Your task to perform on an android device: add a contact Image 0: 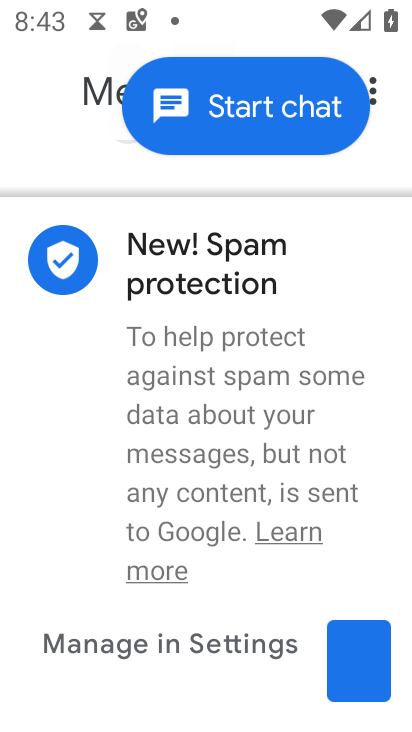
Step 0: press home button
Your task to perform on an android device: add a contact Image 1: 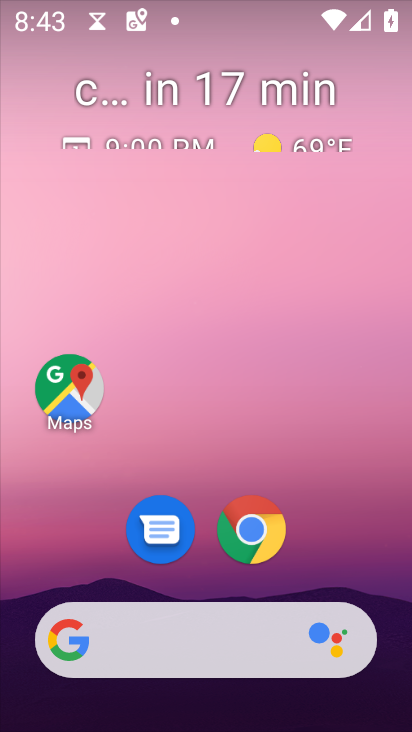
Step 1: drag from (339, 471) to (337, 97)
Your task to perform on an android device: add a contact Image 2: 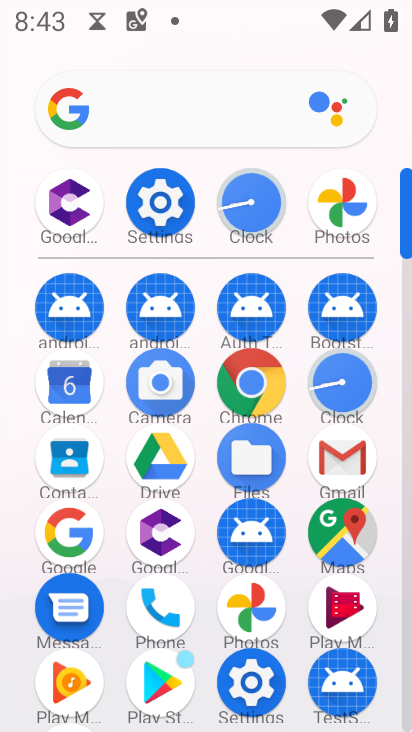
Step 2: click (60, 467)
Your task to perform on an android device: add a contact Image 3: 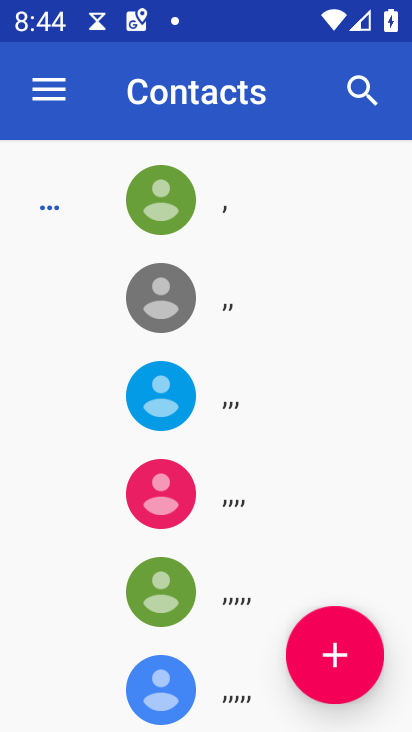
Step 3: click (353, 641)
Your task to perform on an android device: add a contact Image 4: 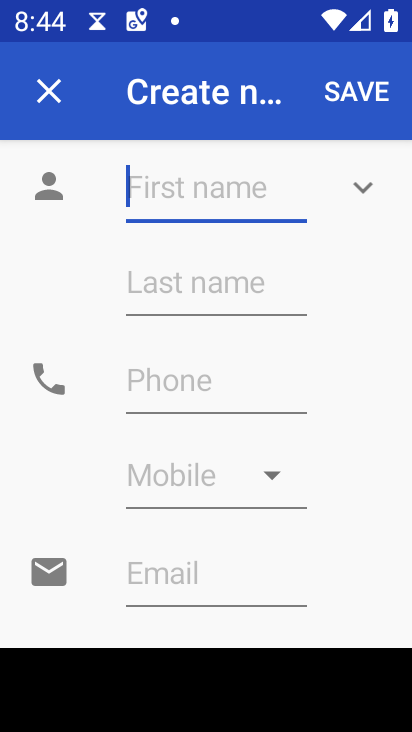
Step 4: type "s"
Your task to perform on an android device: add a contact Image 5: 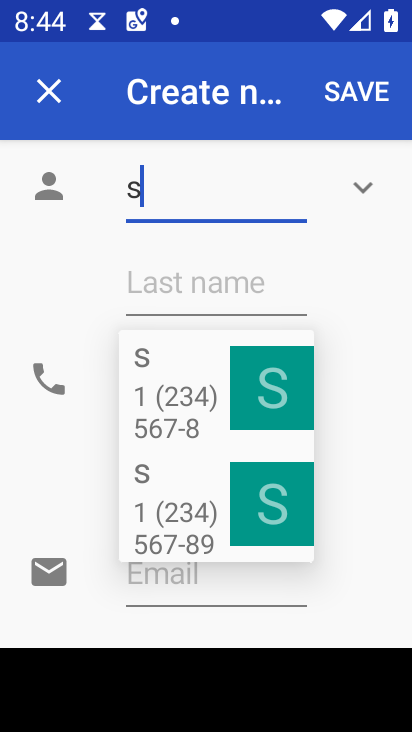
Step 5: type "sre2"
Your task to perform on an android device: add a contact Image 6: 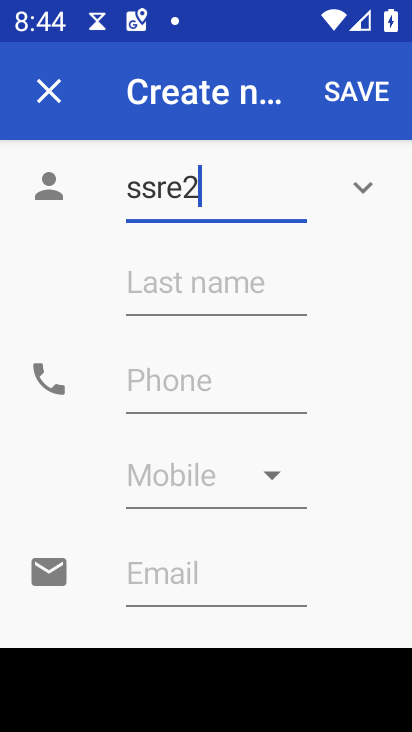
Step 6: click (152, 386)
Your task to perform on an android device: add a contact Image 7: 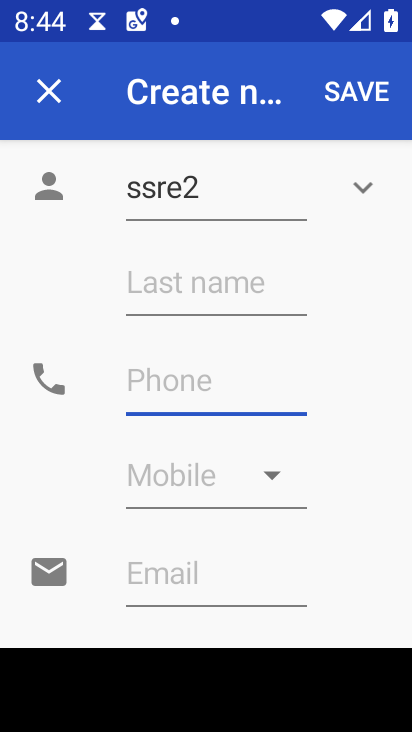
Step 7: type "57682475"
Your task to perform on an android device: add a contact Image 8: 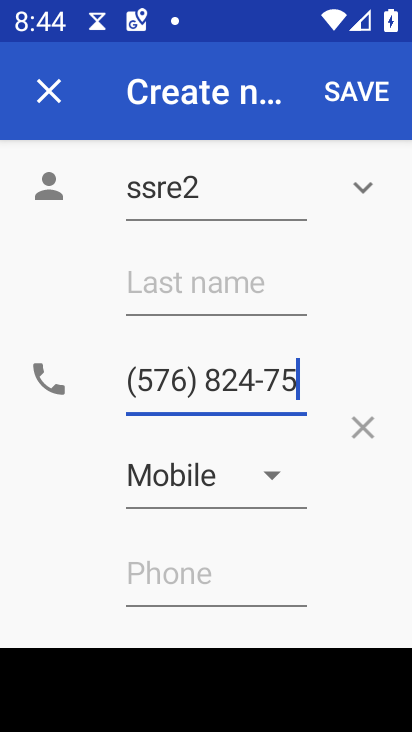
Step 8: click (355, 84)
Your task to perform on an android device: add a contact Image 9: 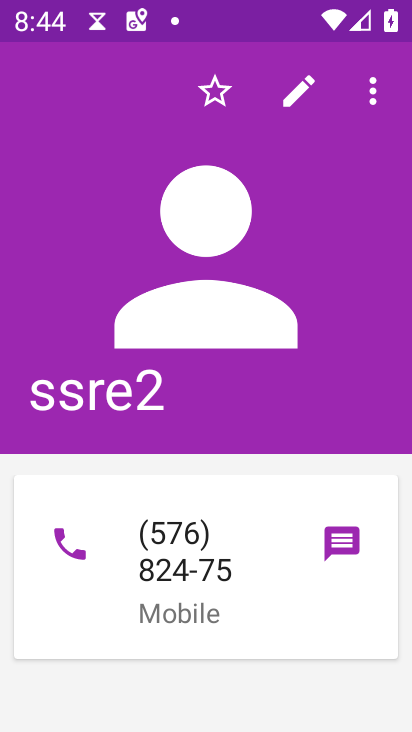
Step 9: task complete